Your task to perform on an android device: turn off notifications settings in the gmail app Image 0: 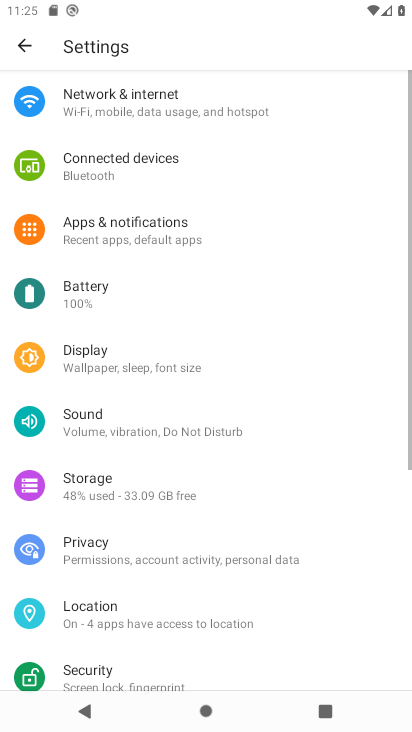
Step 0: press back button
Your task to perform on an android device: turn off notifications settings in the gmail app Image 1: 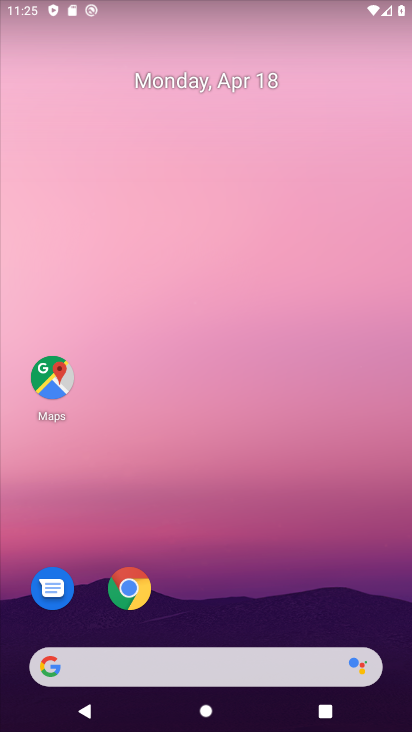
Step 1: drag from (301, 503) to (276, 2)
Your task to perform on an android device: turn off notifications settings in the gmail app Image 2: 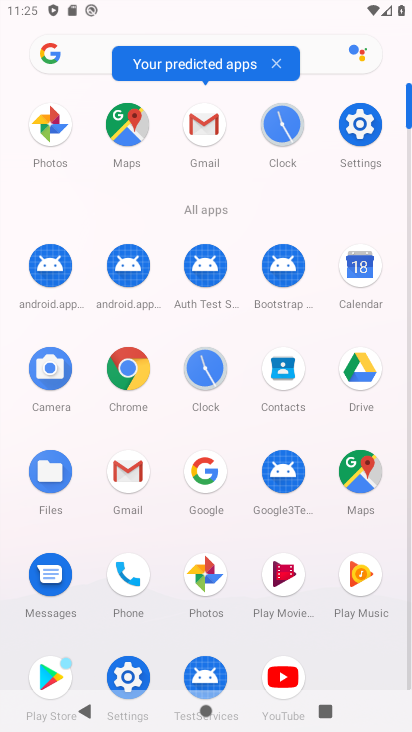
Step 2: click (204, 116)
Your task to perform on an android device: turn off notifications settings in the gmail app Image 3: 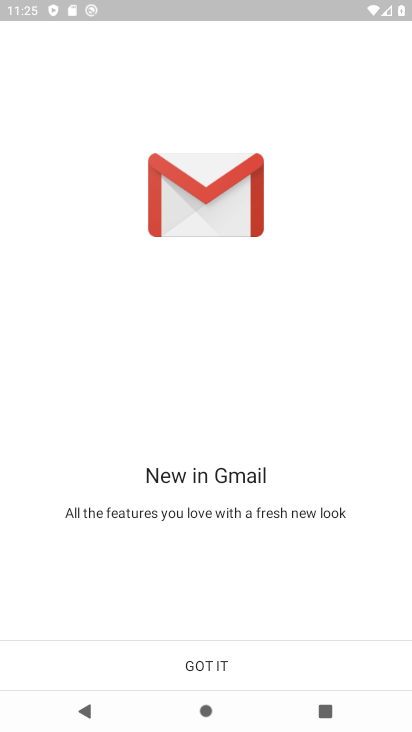
Step 3: click (232, 660)
Your task to perform on an android device: turn off notifications settings in the gmail app Image 4: 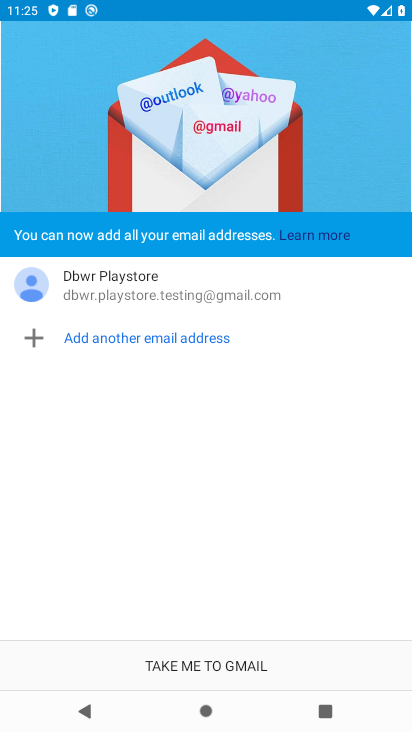
Step 4: click (232, 660)
Your task to perform on an android device: turn off notifications settings in the gmail app Image 5: 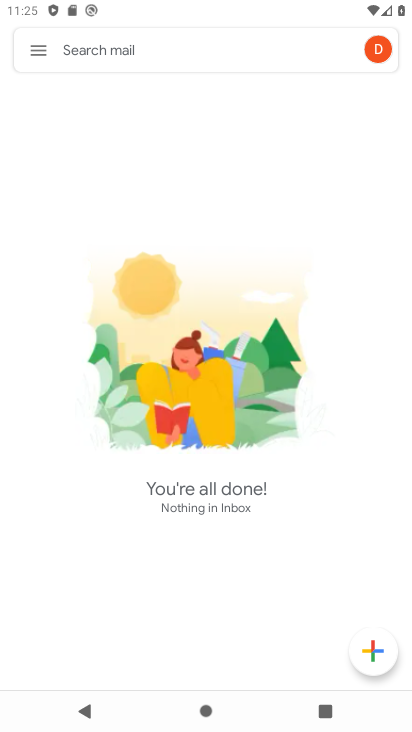
Step 5: click (46, 44)
Your task to perform on an android device: turn off notifications settings in the gmail app Image 6: 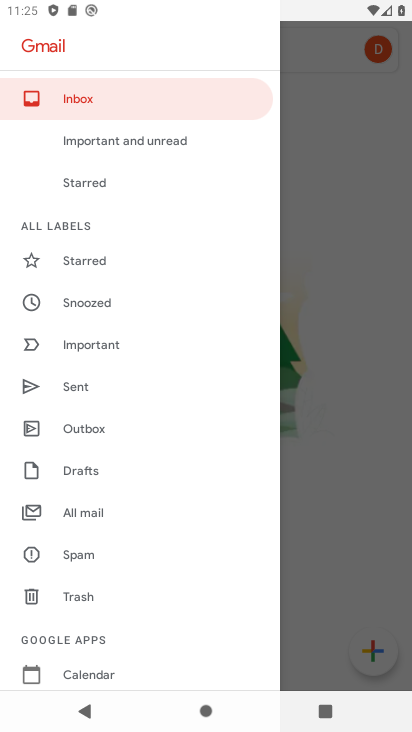
Step 6: drag from (159, 547) to (123, 150)
Your task to perform on an android device: turn off notifications settings in the gmail app Image 7: 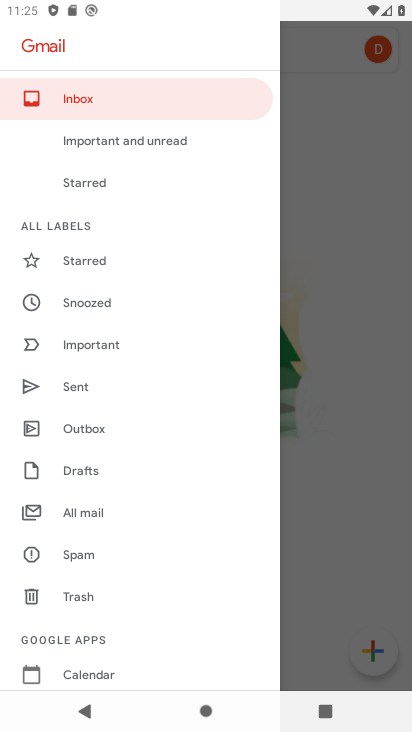
Step 7: drag from (117, 637) to (178, 272)
Your task to perform on an android device: turn off notifications settings in the gmail app Image 8: 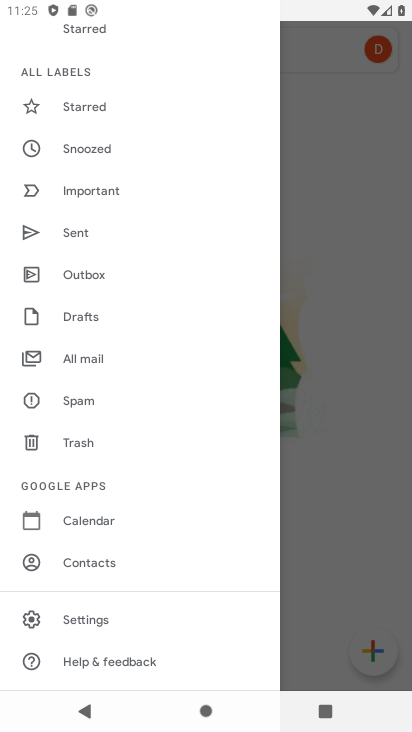
Step 8: click (109, 615)
Your task to perform on an android device: turn off notifications settings in the gmail app Image 9: 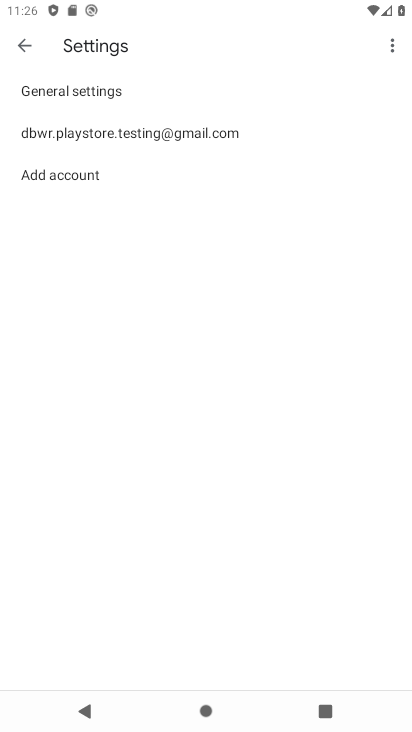
Step 9: click (99, 134)
Your task to perform on an android device: turn off notifications settings in the gmail app Image 10: 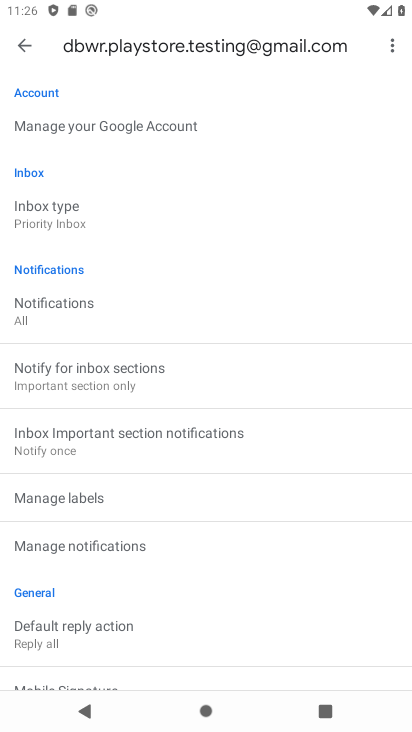
Step 10: click (96, 544)
Your task to perform on an android device: turn off notifications settings in the gmail app Image 11: 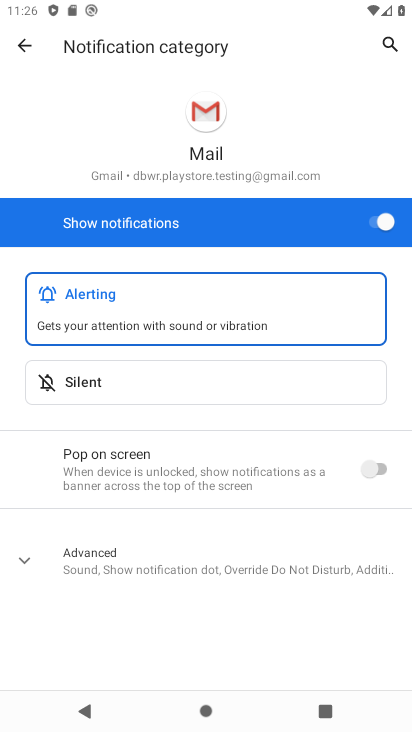
Step 11: click (380, 234)
Your task to perform on an android device: turn off notifications settings in the gmail app Image 12: 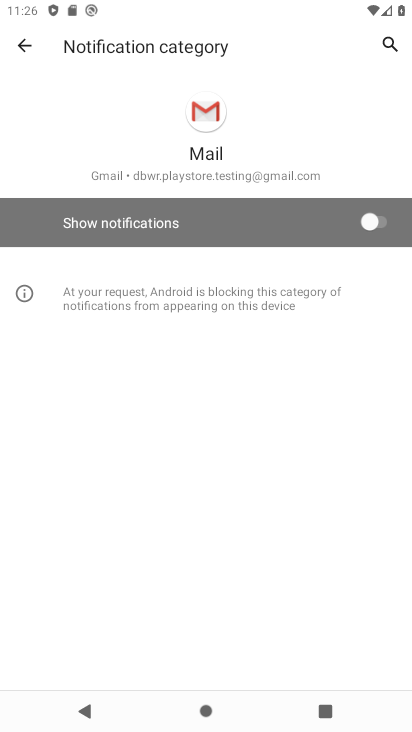
Step 12: task complete